Your task to perform on an android device: Go to eBay Image 0: 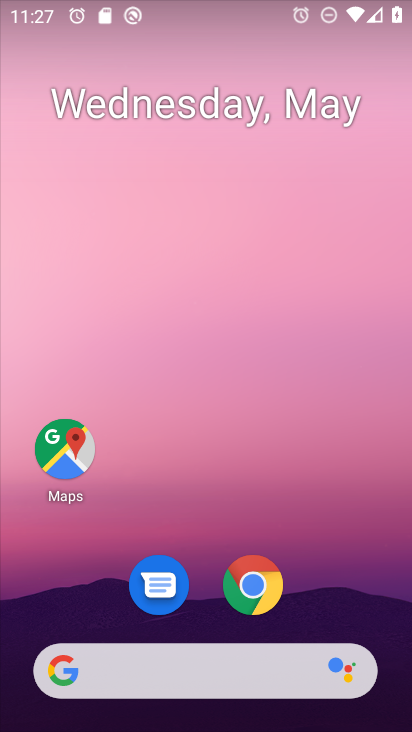
Step 0: click (203, 670)
Your task to perform on an android device: Go to eBay Image 1: 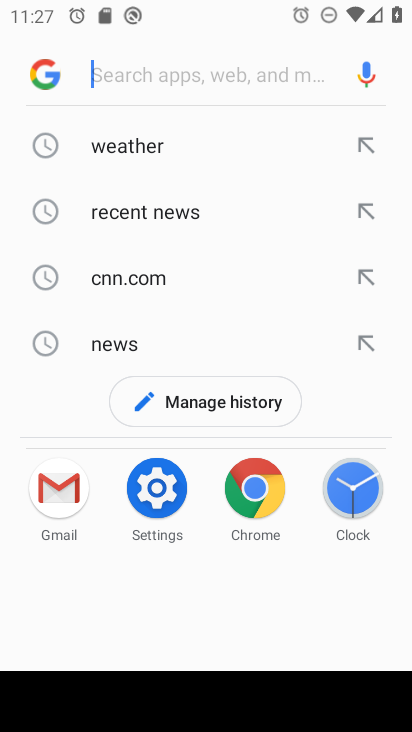
Step 1: type "ebay"
Your task to perform on an android device: Go to eBay Image 2: 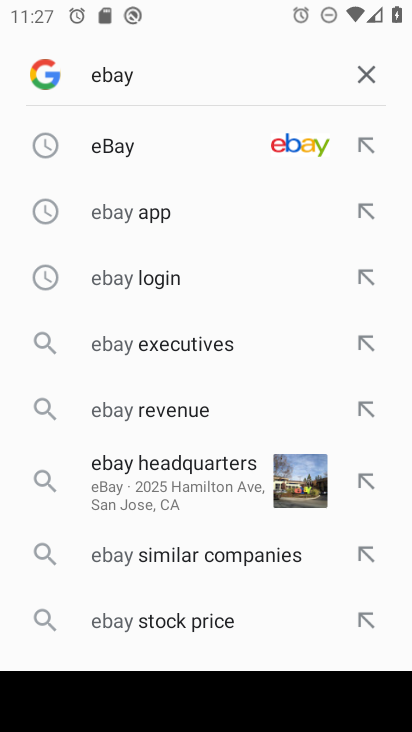
Step 2: click (103, 140)
Your task to perform on an android device: Go to eBay Image 3: 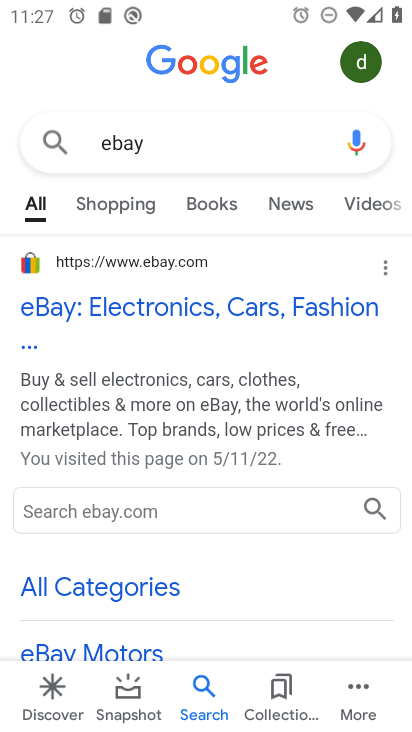
Step 3: click (54, 298)
Your task to perform on an android device: Go to eBay Image 4: 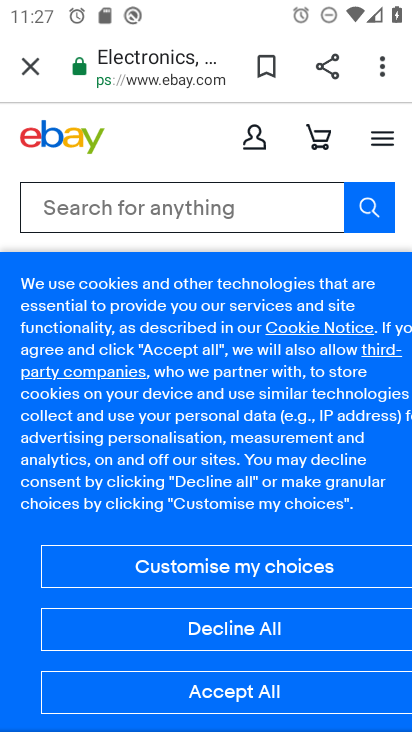
Step 4: task complete